Your task to perform on an android device: turn off sleep mode Image 0: 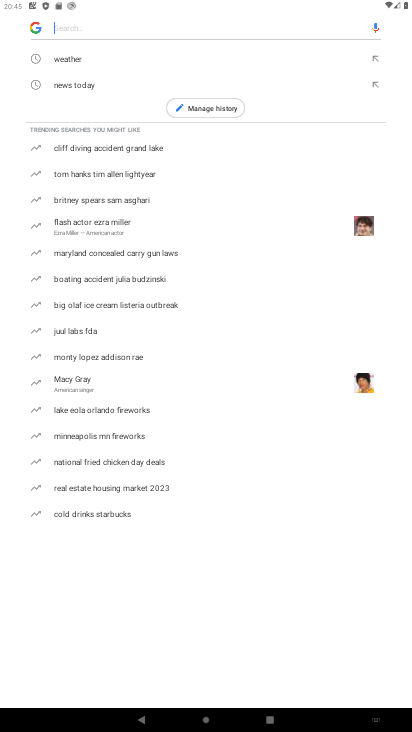
Step 0: press home button
Your task to perform on an android device: turn off sleep mode Image 1: 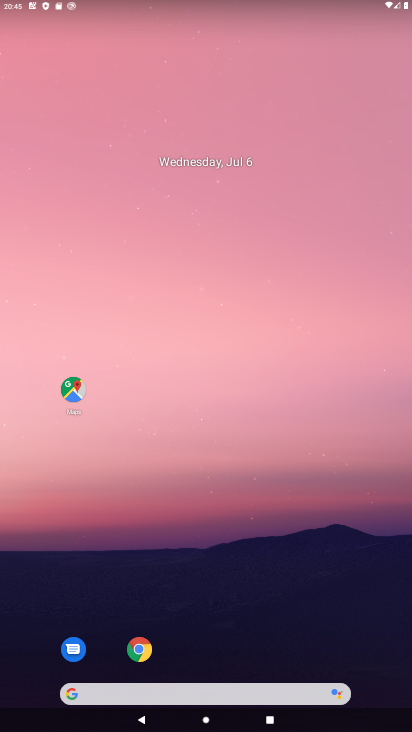
Step 1: drag from (214, 646) to (329, 25)
Your task to perform on an android device: turn off sleep mode Image 2: 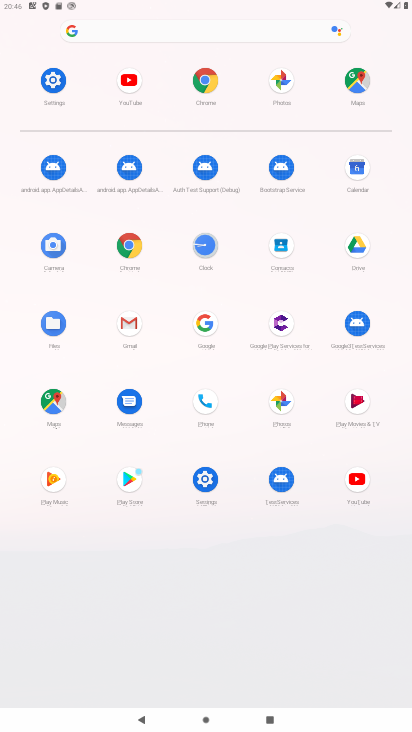
Step 2: click (139, 328)
Your task to perform on an android device: turn off sleep mode Image 3: 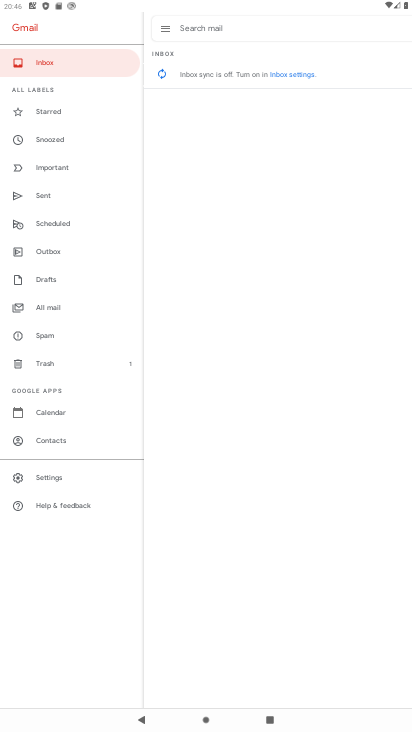
Step 3: press home button
Your task to perform on an android device: turn off sleep mode Image 4: 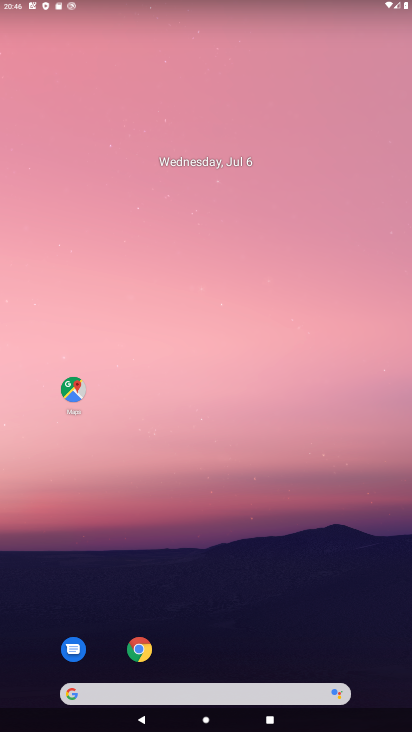
Step 4: drag from (162, 597) to (220, 269)
Your task to perform on an android device: turn off sleep mode Image 5: 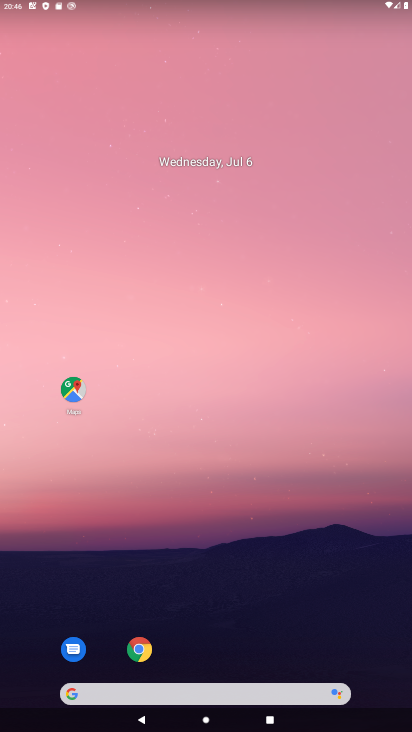
Step 5: drag from (252, 665) to (331, 252)
Your task to perform on an android device: turn off sleep mode Image 6: 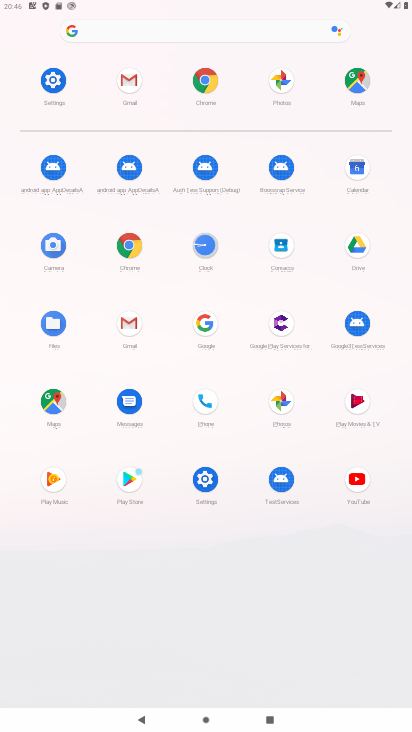
Step 6: click (213, 489)
Your task to perform on an android device: turn off sleep mode Image 7: 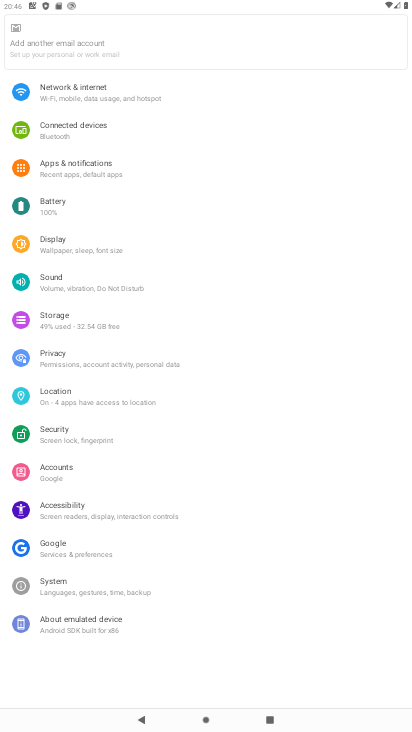
Step 7: drag from (237, 74) to (237, 726)
Your task to perform on an android device: turn off sleep mode Image 8: 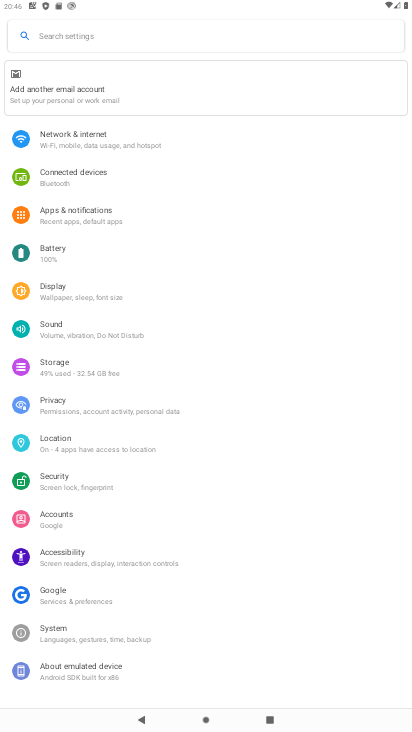
Step 8: click (192, 37)
Your task to perform on an android device: turn off sleep mode Image 9: 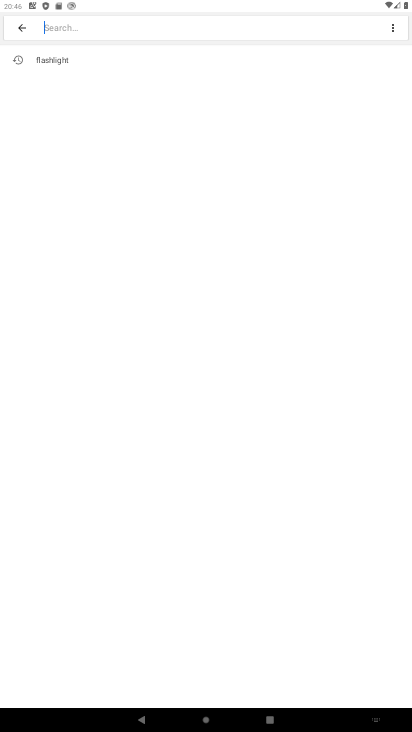
Step 9: type "sleep mode"
Your task to perform on an android device: turn off sleep mode Image 10: 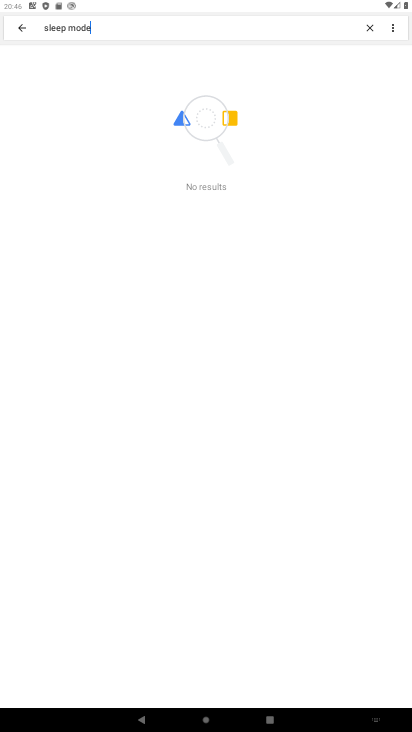
Step 10: task complete